Your task to perform on an android device: Show me popular videos on Youtube Image 0: 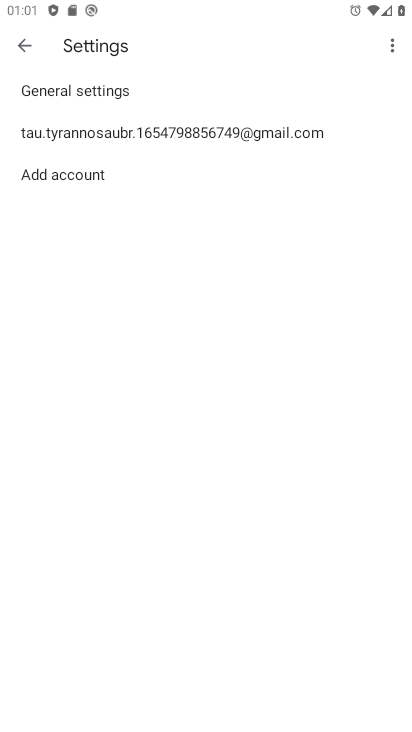
Step 0: press home button
Your task to perform on an android device: Show me popular videos on Youtube Image 1: 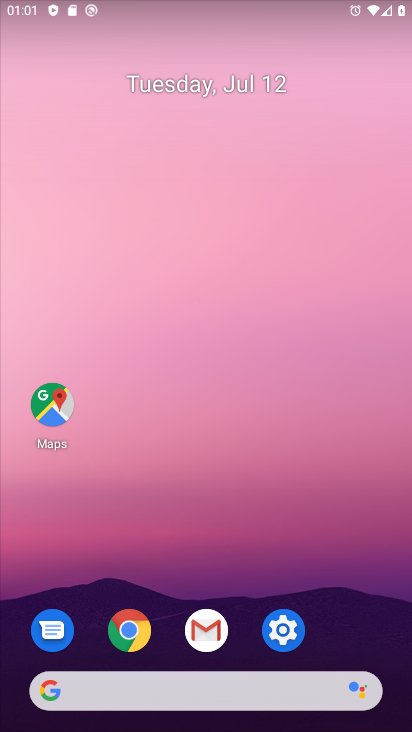
Step 1: drag from (233, 701) to (225, 115)
Your task to perform on an android device: Show me popular videos on Youtube Image 2: 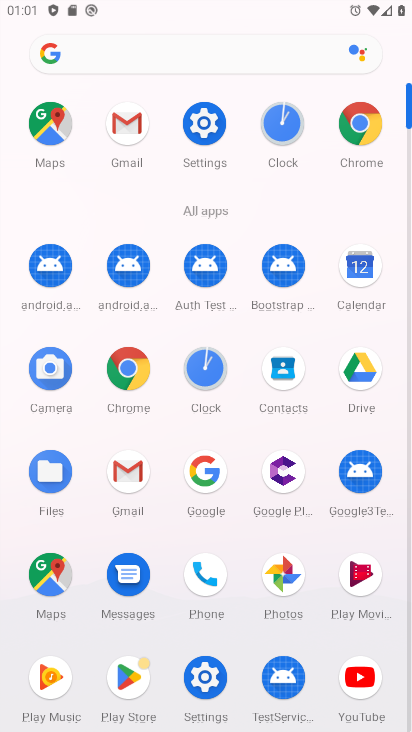
Step 2: click (362, 670)
Your task to perform on an android device: Show me popular videos on Youtube Image 3: 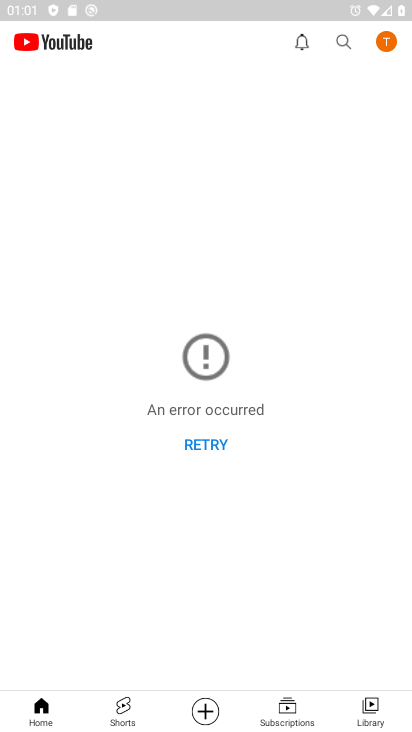
Step 3: click (347, 37)
Your task to perform on an android device: Show me popular videos on Youtube Image 4: 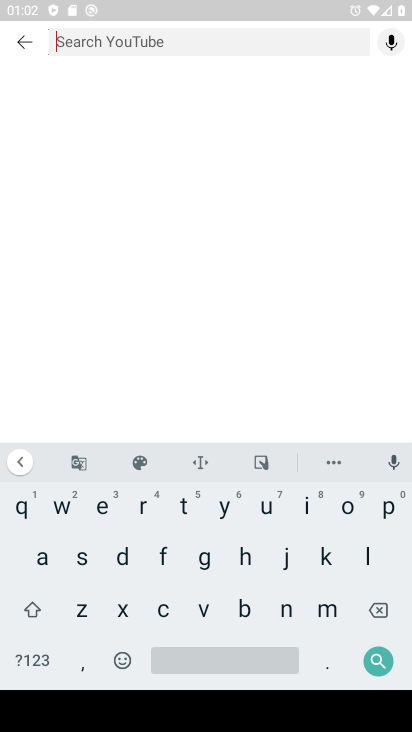
Step 4: click (385, 513)
Your task to perform on an android device: Show me popular videos on Youtube Image 5: 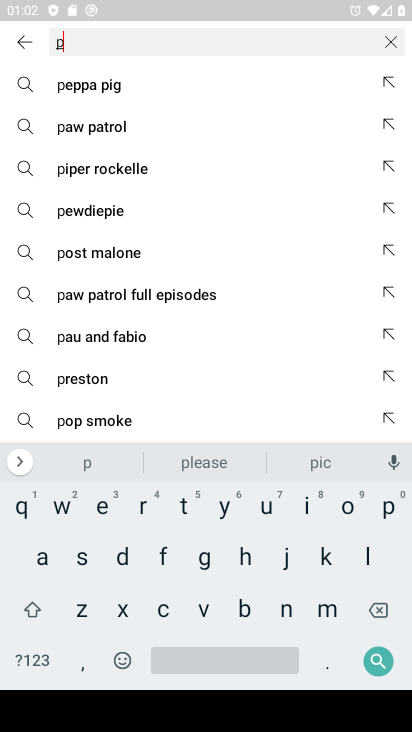
Step 5: click (344, 507)
Your task to perform on an android device: Show me popular videos on Youtube Image 6: 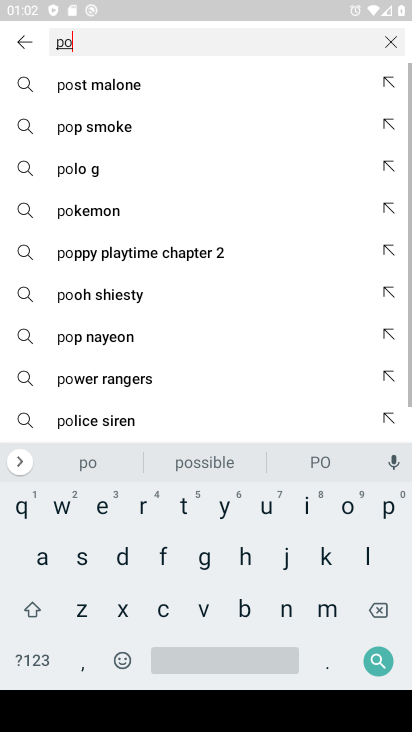
Step 6: click (393, 512)
Your task to perform on an android device: Show me popular videos on Youtube Image 7: 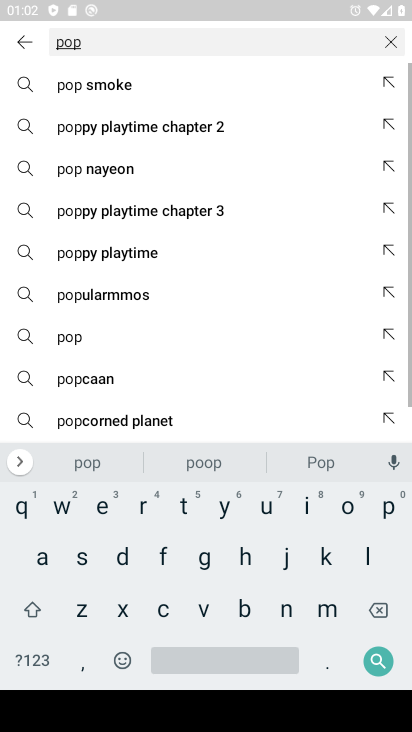
Step 7: click (264, 507)
Your task to perform on an android device: Show me popular videos on Youtube Image 8: 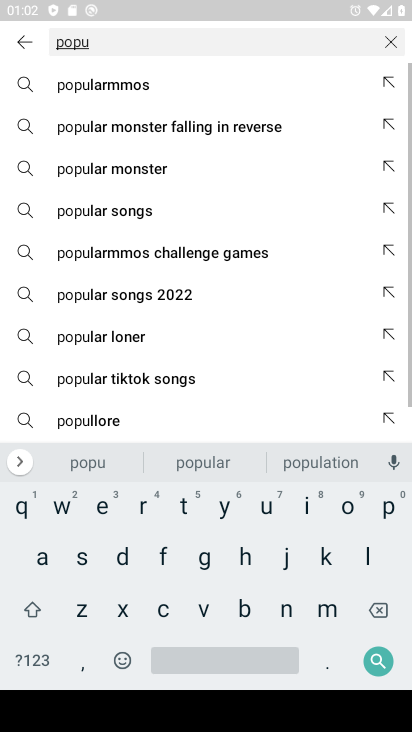
Step 8: click (224, 464)
Your task to perform on an android device: Show me popular videos on Youtube Image 9: 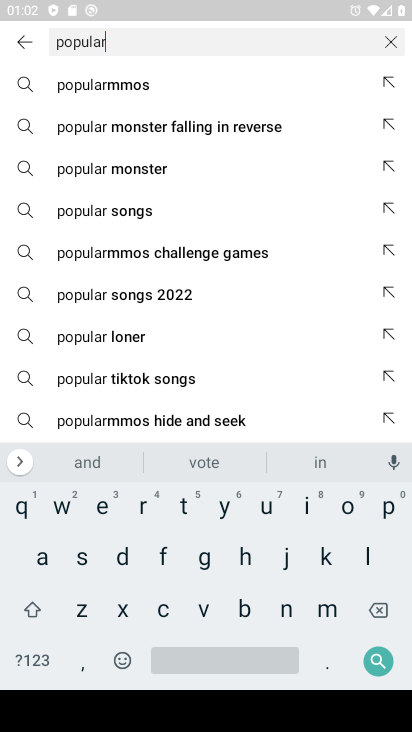
Step 9: click (201, 608)
Your task to perform on an android device: Show me popular videos on Youtube Image 10: 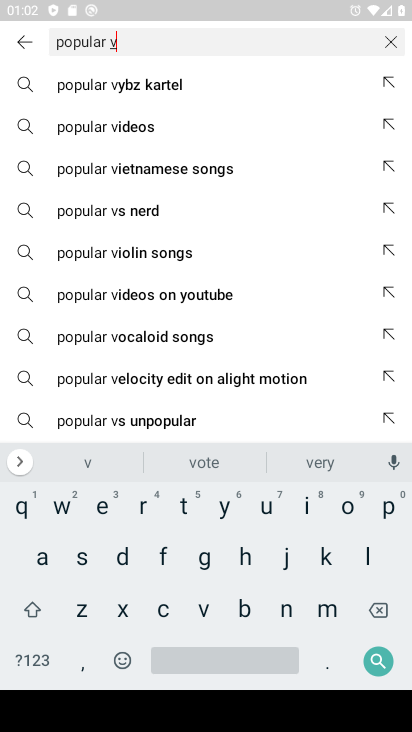
Step 10: click (103, 129)
Your task to perform on an android device: Show me popular videos on Youtube Image 11: 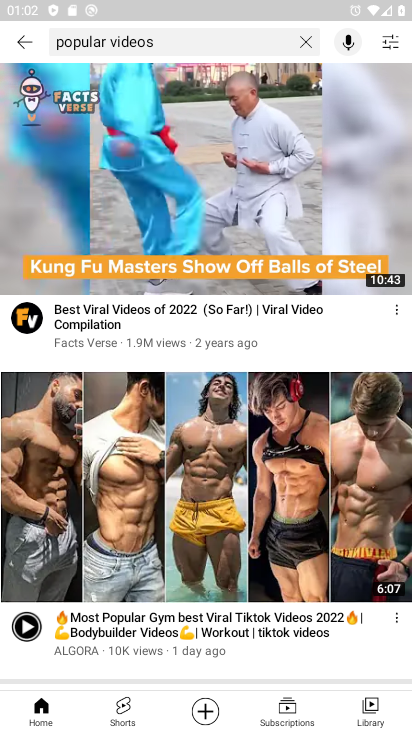
Step 11: task complete